Your task to perform on an android device: turn off data saver in the chrome app Image 0: 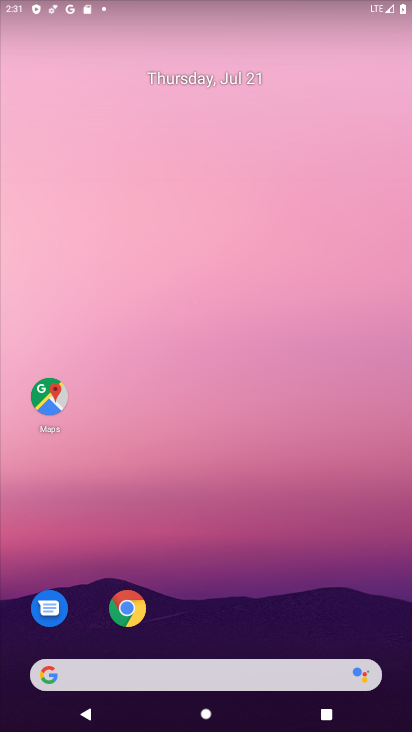
Step 0: drag from (202, 644) to (0, 458)
Your task to perform on an android device: turn off data saver in the chrome app Image 1: 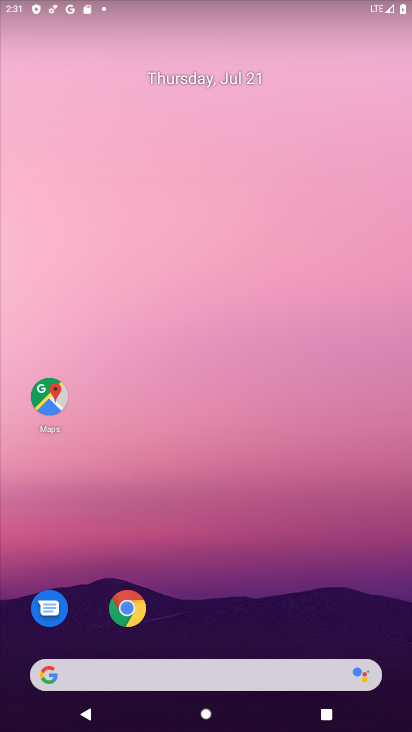
Step 1: drag from (203, 634) to (119, 46)
Your task to perform on an android device: turn off data saver in the chrome app Image 2: 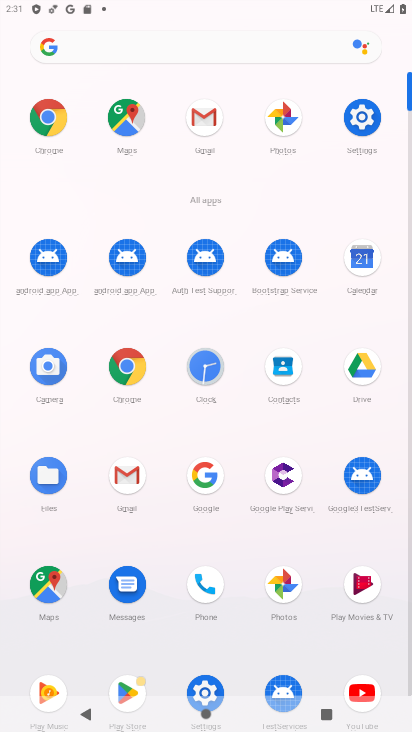
Step 2: click (131, 365)
Your task to perform on an android device: turn off data saver in the chrome app Image 3: 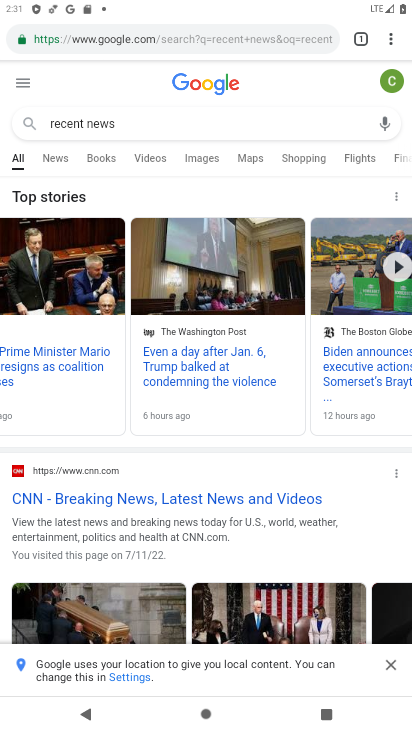
Step 3: drag from (388, 39) to (256, 479)
Your task to perform on an android device: turn off data saver in the chrome app Image 4: 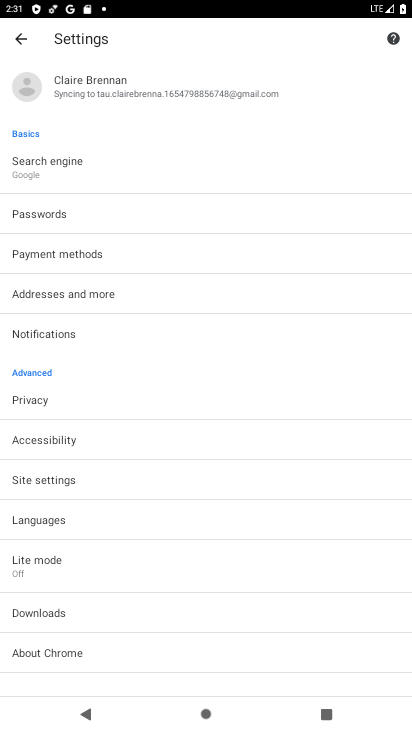
Step 4: click (41, 558)
Your task to perform on an android device: turn off data saver in the chrome app Image 5: 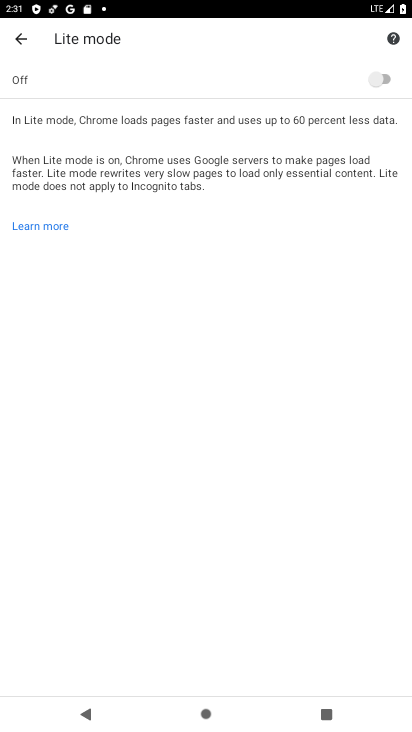
Step 5: task complete